Your task to perform on an android device: Open settings on Google Maps Image 0: 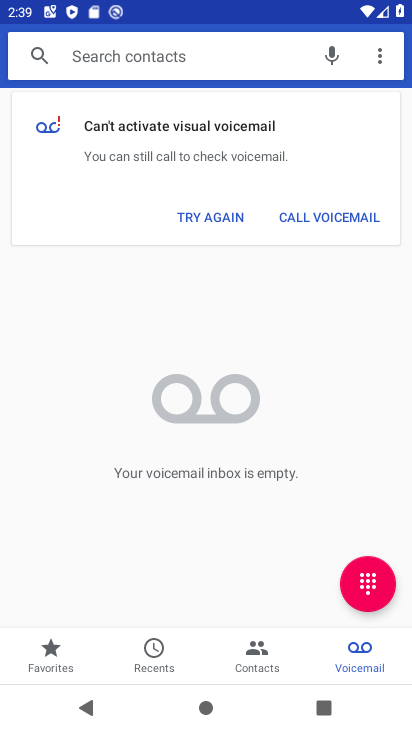
Step 0: press home button
Your task to perform on an android device: Open settings on Google Maps Image 1: 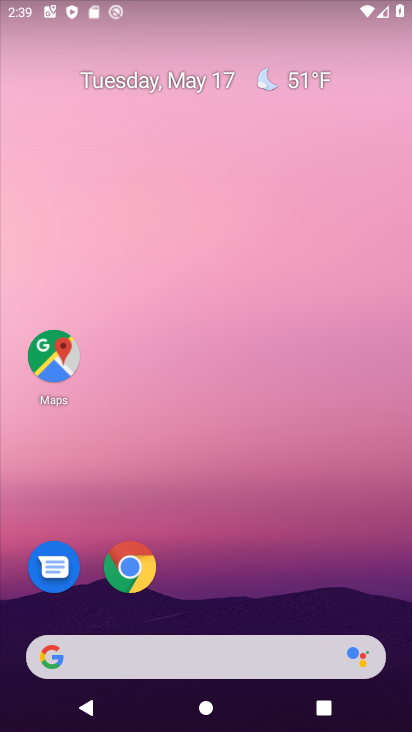
Step 1: click (58, 358)
Your task to perform on an android device: Open settings on Google Maps Image 2: 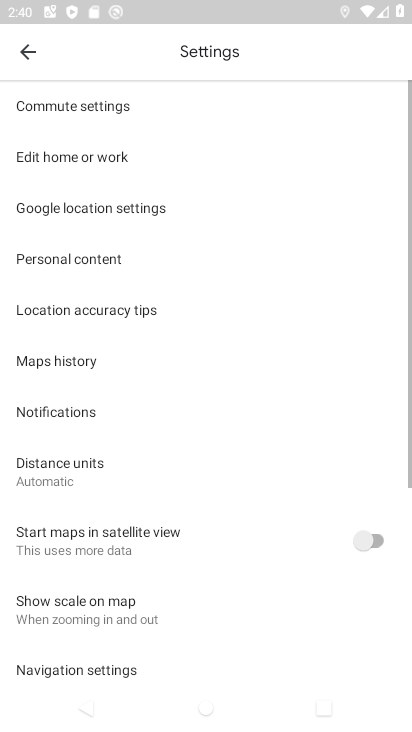
Step 2: press home button
Your task to perform on an android device: Open settings on Google Maps Image 3: 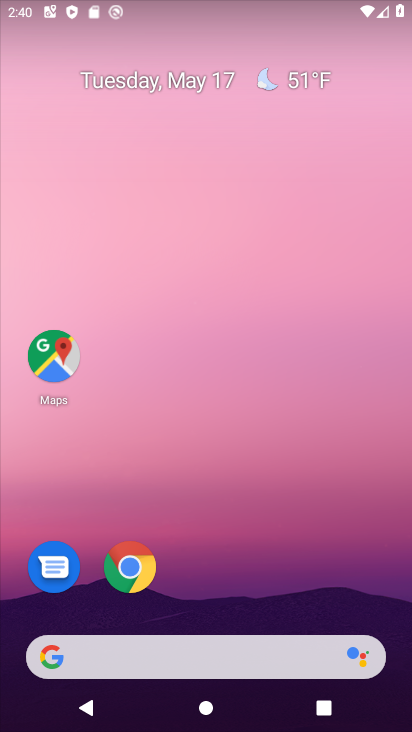
Step 3: click (62, 370)
Your task to perform on an android device: Open settings on Google Maps Image 4: 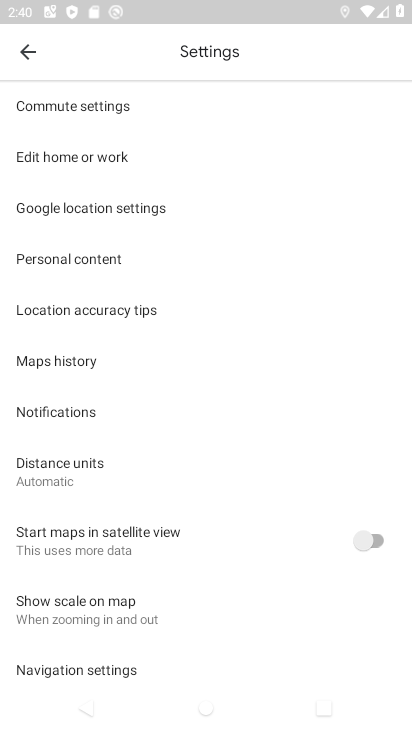
Step 4: task complete